Your task to perform on an android device: Show me popular games on the Play Store Image 0: 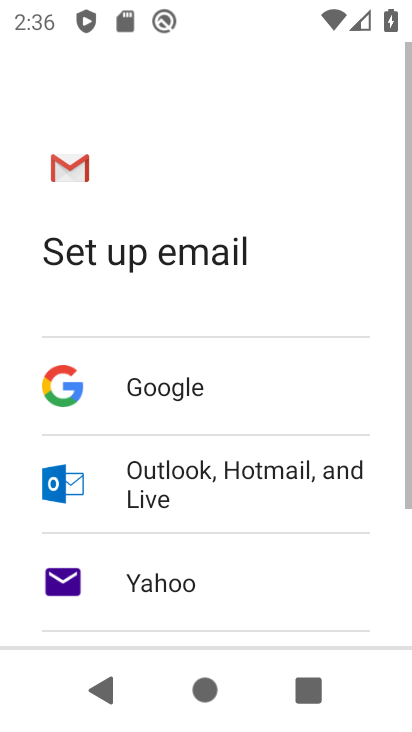
Step 0: press home button
Your task to perform on an android device: Show me popular games on the Play Store Image 1: 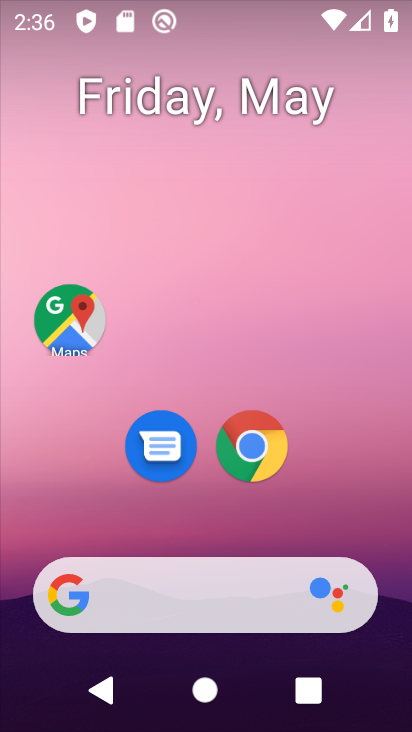
Step 1: click (367, 541)
Your task to perform on an android device: Show me popular games on the Play Store Image 2: 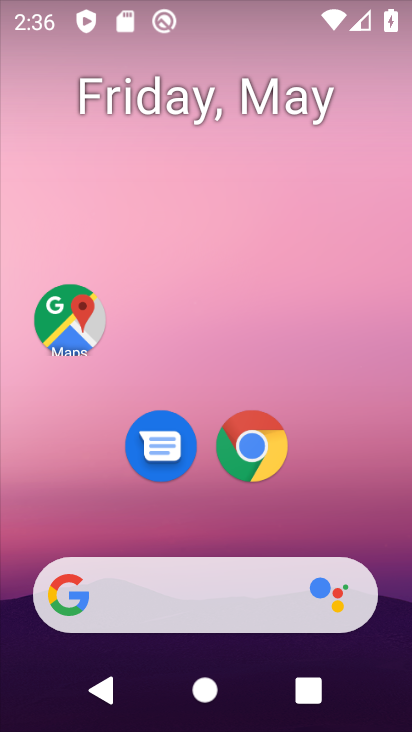
Step 2: drag from (372, 548) to (255, 52)
Your task to perform on an android device: Show me popular games on the Play Store Image 3: 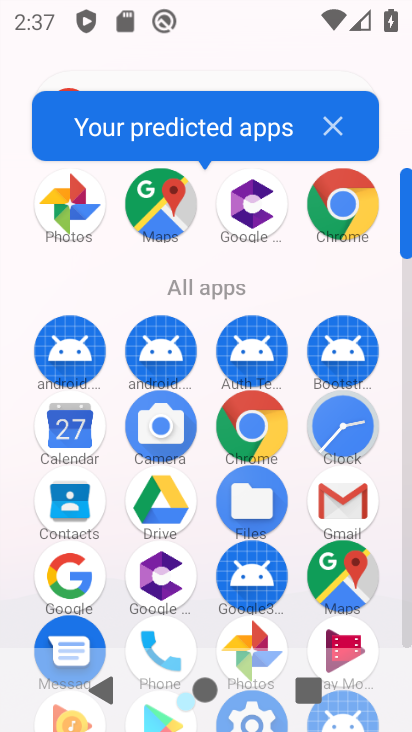
Step 3: click (405, 647)
Your task to perform on an android device: Show me popular games on the Play Store Image 4: 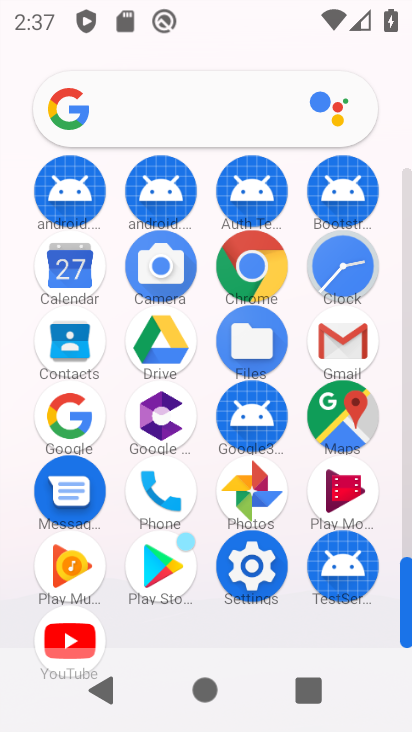
Step 4: click (180, 579)
Your task to perform on an android device: Show me popular games on the Play Store Image 5: 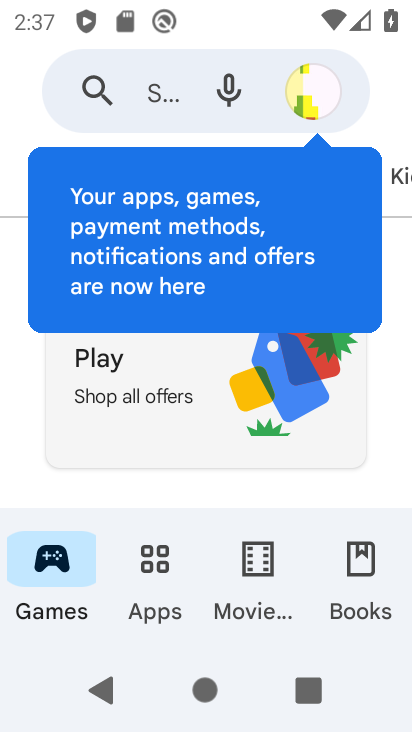
Step 5: drag from (353, 491) to (342, 170)
Your task to perform on an android device: Show me popular games on the Play Store Image 6: 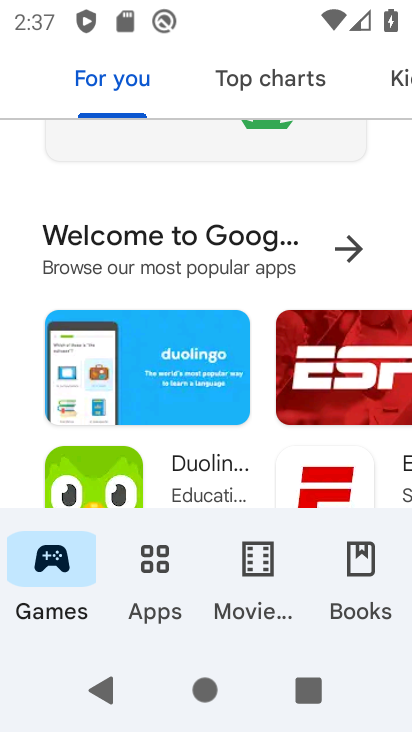
Step 6: click (251, 250)
Your task to perform on an android device: Show me popular games on the Play Store Image 7: 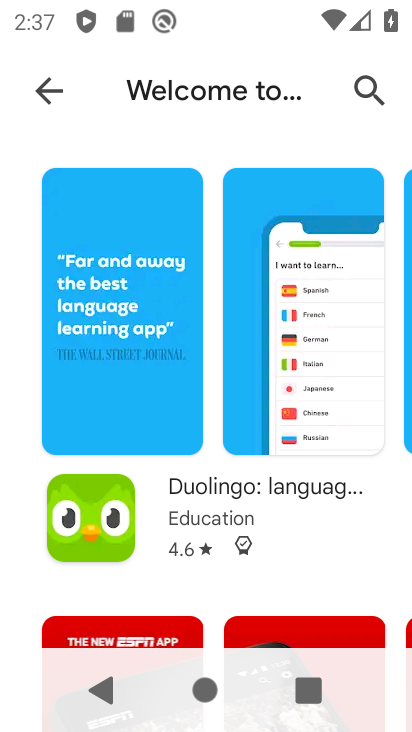
Step 7: task complete